Your task to perform on an android device: change the clock display to show seconds Image 0: 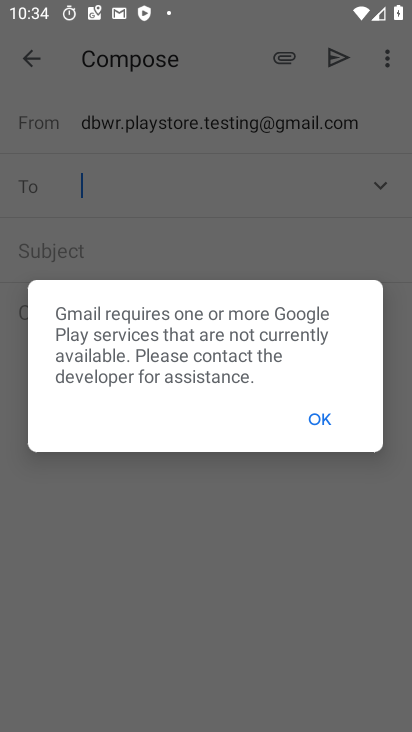
Step 0: press back button
Your task to perform on an android device: change the clock display to show seconds Image 1: 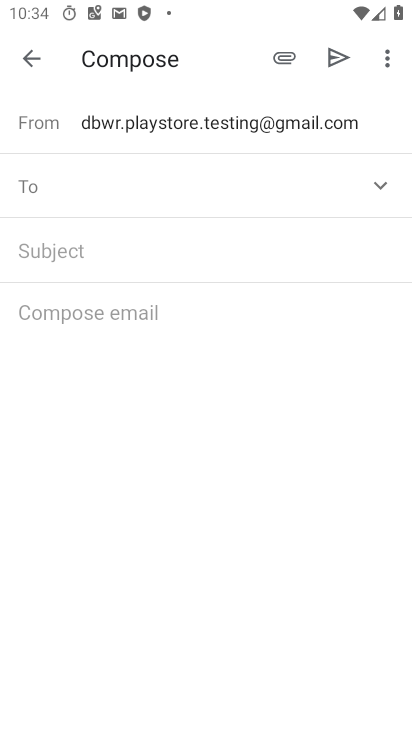
Step 1: press back button
Your task to perform on an android device: change the clock display to show seconds Image 2: 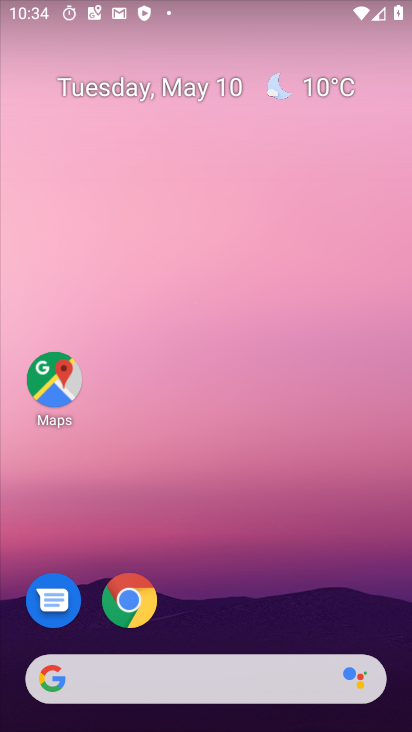
Step 2: drag from (255, 571) to (241, 5)
Your task to perform on an android device: change the clock display to show seconds Image 3: 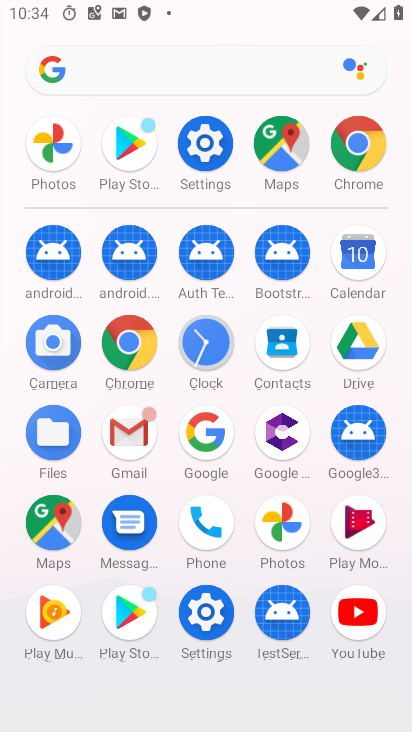
Step 3: click (205, 337)
Your task to perform on an android device: change the clock display to show seconds Image 4: 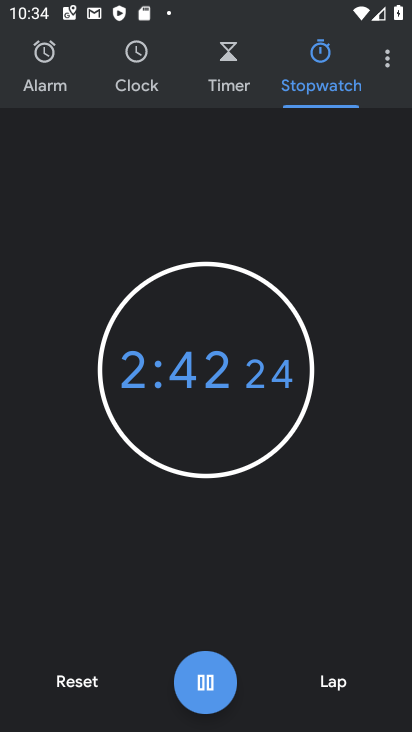
Step 4: drag from (382, 60) to (298, 140)
Your task to perform on an android device: change the clock display to show seconds Image 5: 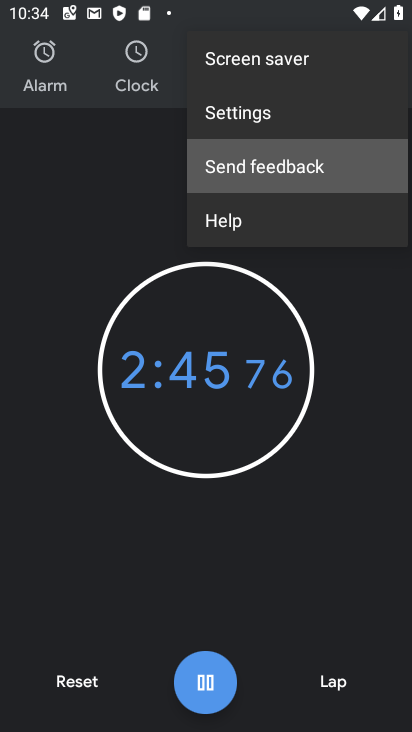
Step 5: click (282, 123)
Your task to perform on an android device: change the clock display to show seconds Image 6: 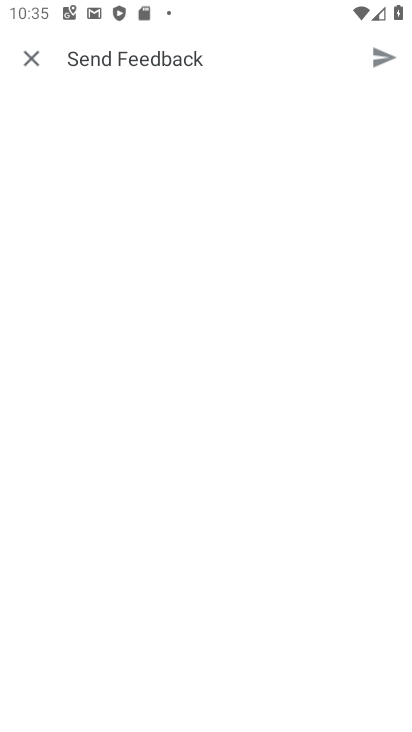
Step 6: click (22, 55)
Your task to perform on an android device: change the clock display to show seconds Image 7: 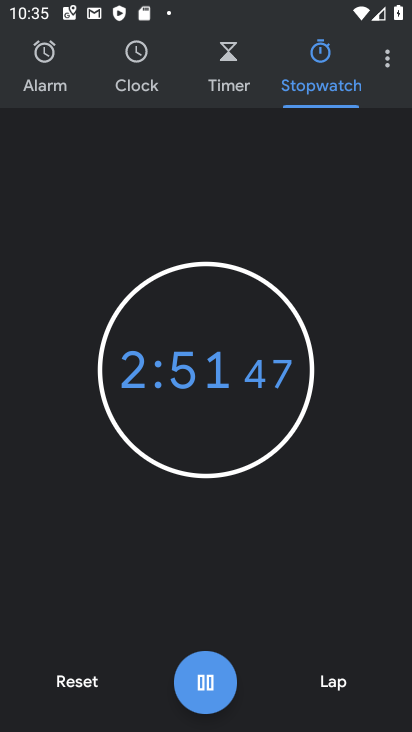
Step 7: drag from (387, 61) to (363, 123)
Your task to perform on an android device: change the clock display to show seconds Image 8: 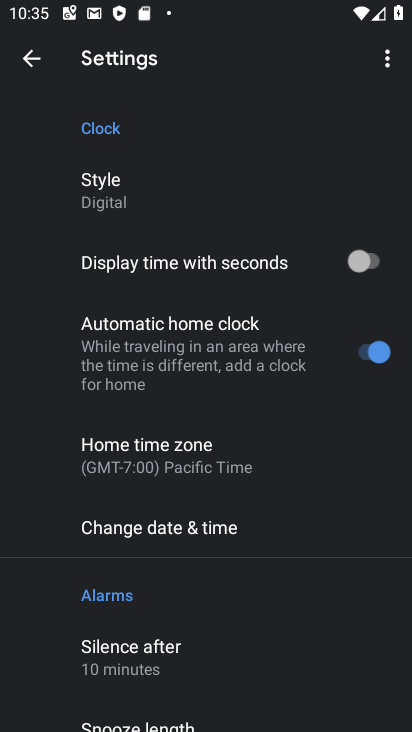
Step 8: click (364, 256)
Your task to perform on an android device: change the clock display to show seconds Image 9: 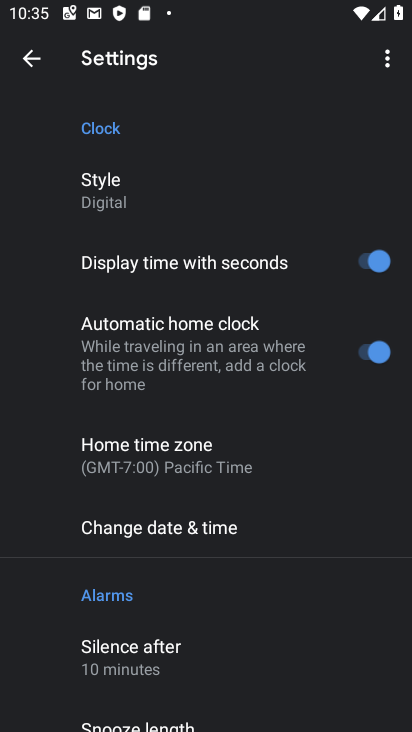
Step 9: task complete